Your task to perform on an android device: change the clock display to digital Image 0: 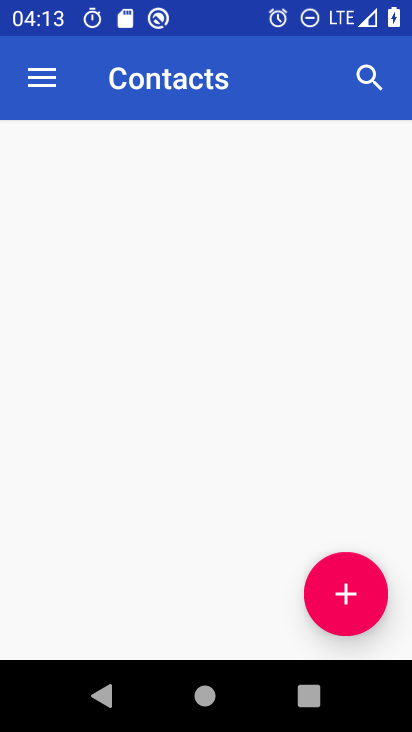
Step 0: drag from (291, 567) to (264, 135)
Your task to perform on an android device: change the clock display to digital Image 1: 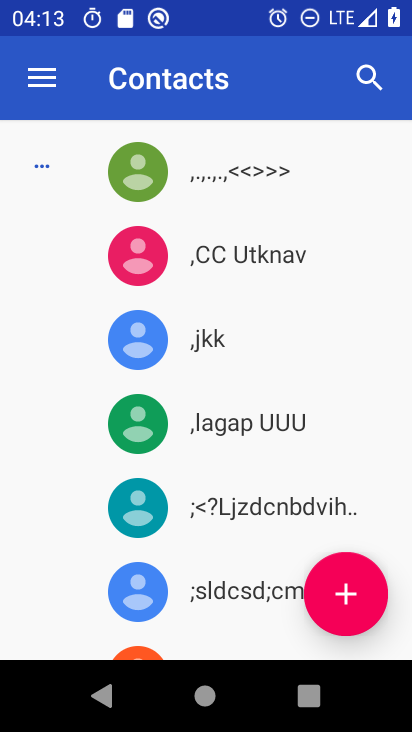
Step 1: press home button
Your task to perform on an android device: change the clock display to digital Image 2: 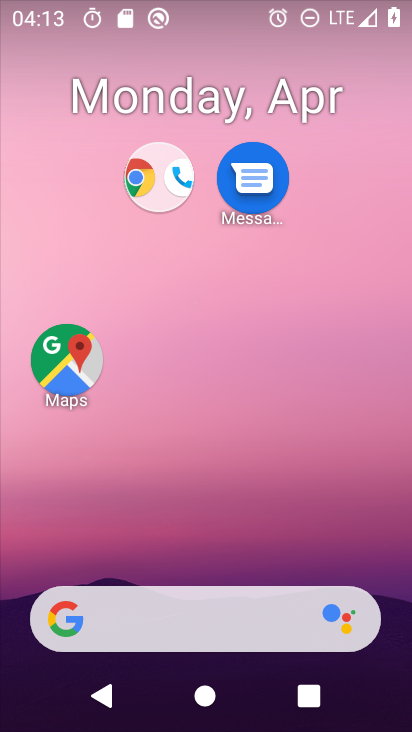
Step 2: drag from (312, 490) to (247, 14)
Your task to perform on an android device: change the clock display to digital Image 3: 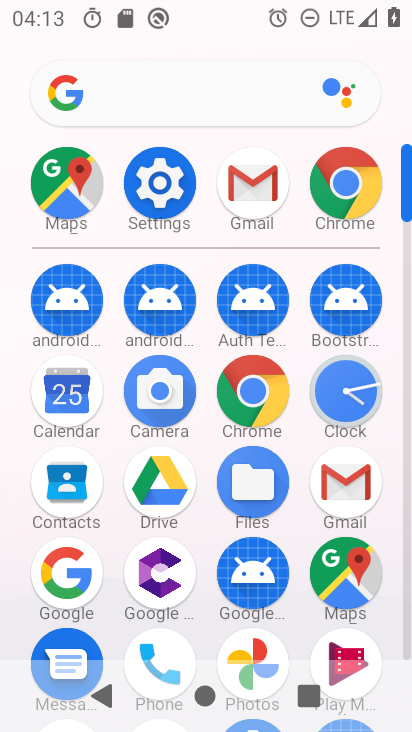
Step 3: click (337, 393)
Your task to perform on an android device: change the clock display to digital Image 4: 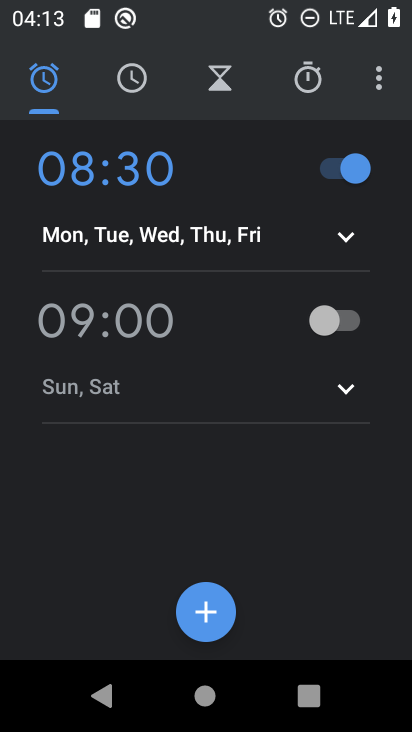
Step 4: task complete